Your task to perform on an android device: install app "Microsoft Excel" Image 0: 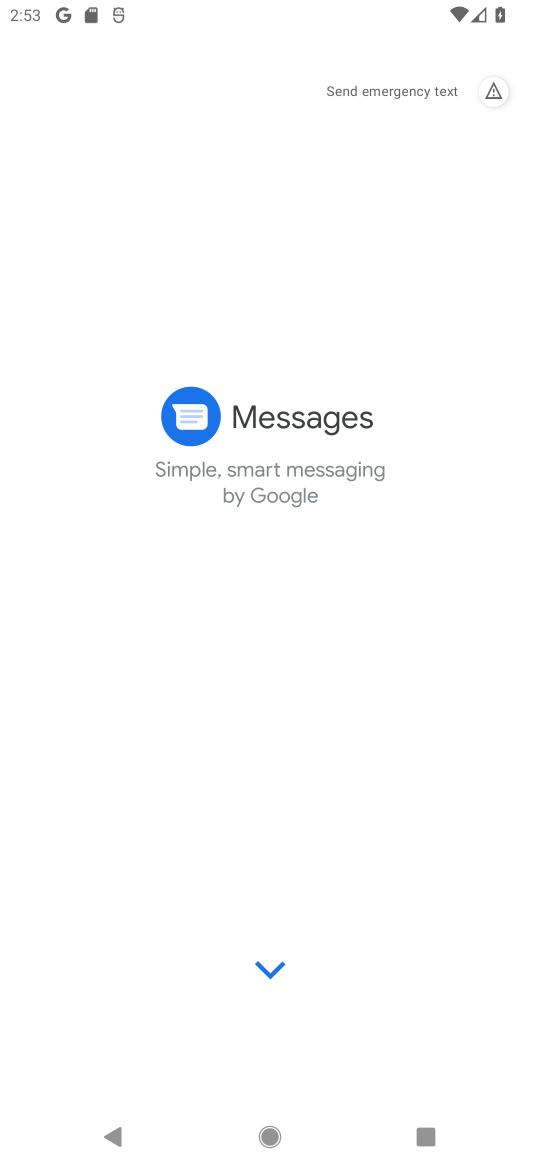
Step 0: press home button
Your task to perform on an android device: install app "Microsoft Excel" Image 1: 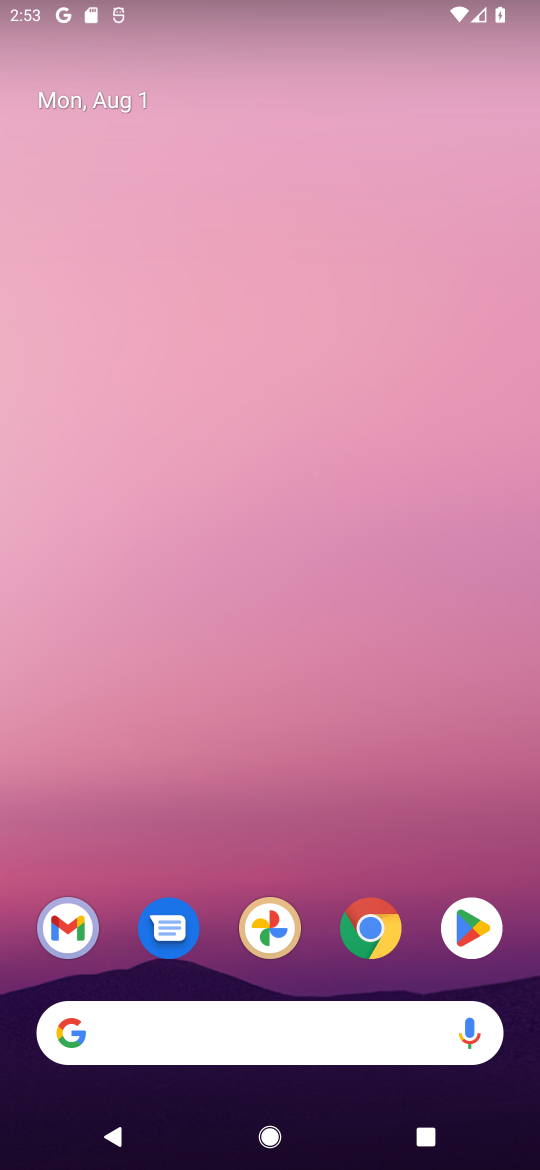
Step 1: click (472, 953)
Your task to perform on an android device: install app "Microsoft Excel" Image 2: 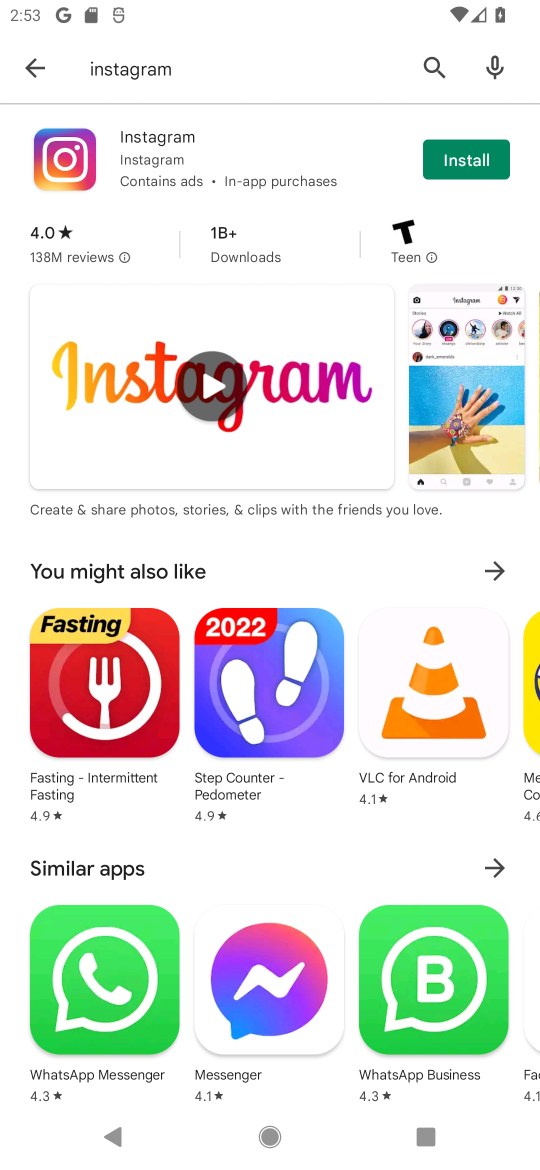
Step 2: click (406, 61)
Your task to perform on an android device: install app "Microsoft Excel" Image 3: 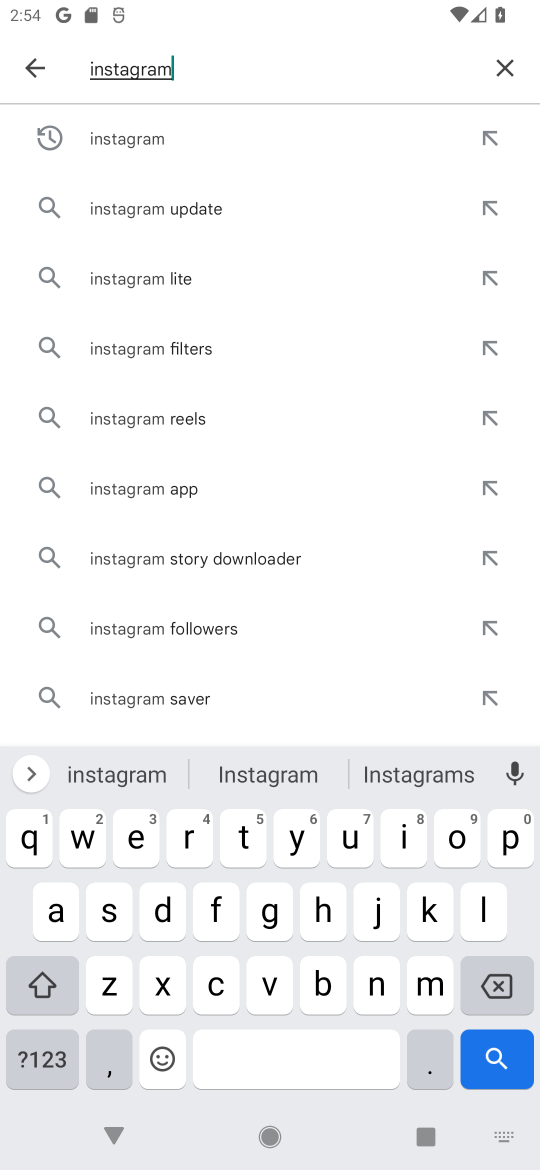
Step 3: click (488, 67)
Your task to perform on an android device: install app "Microsoft Excel" Image 4: 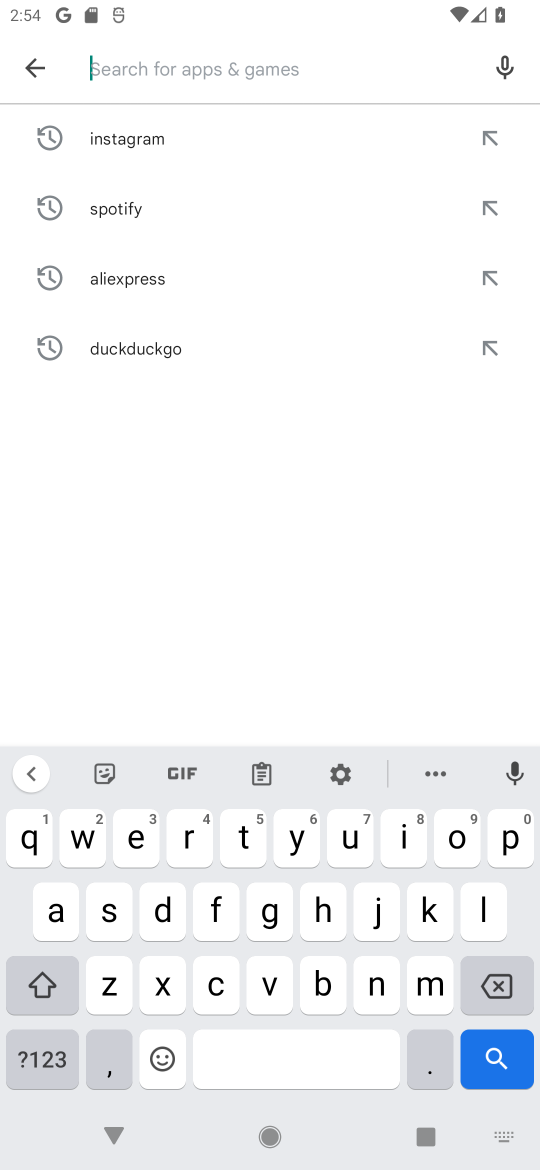
Step 4: click (131, 835)
Your task to perform on an android device: install app "Microsoft Excel" Image 5: 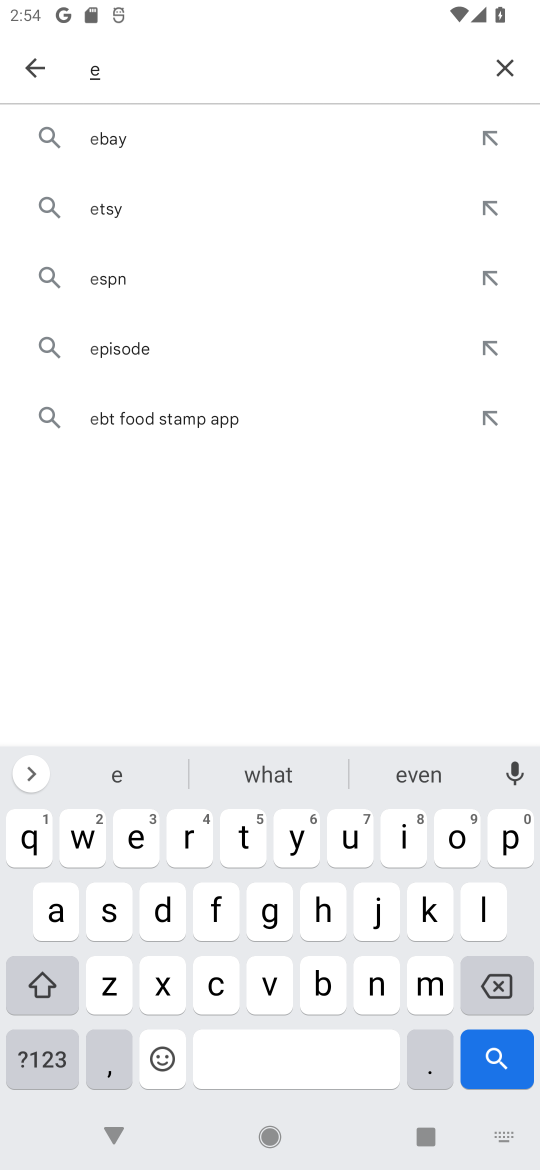
Step 5: click (162, 997)
Your task to perform on an android device: install app "Microsoft Excel" Image 6: 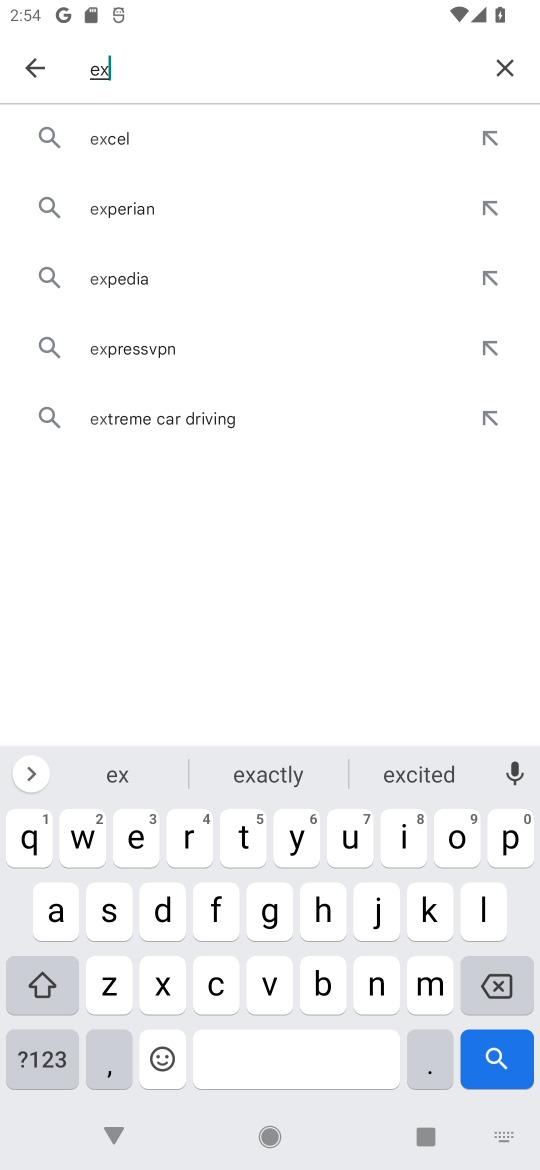
Step 6: click (138, 153)
Your task to perform on an android device: install app "Microsoft Excel" Image 7: 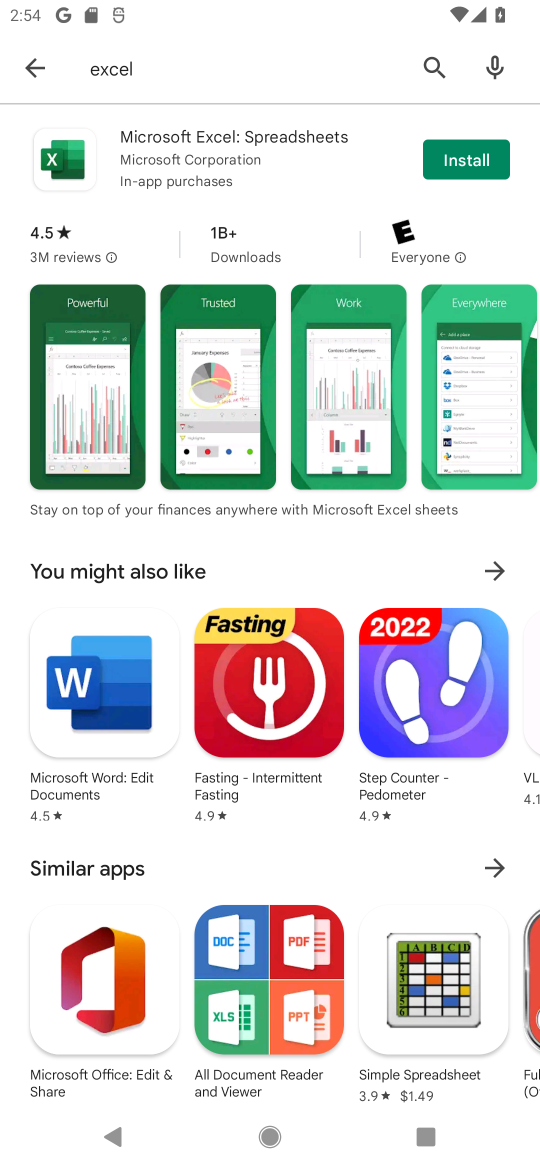
Step 7: click (430, 140)
Your task to perform on an android device: install app "Microsoft Excel" Image 8: 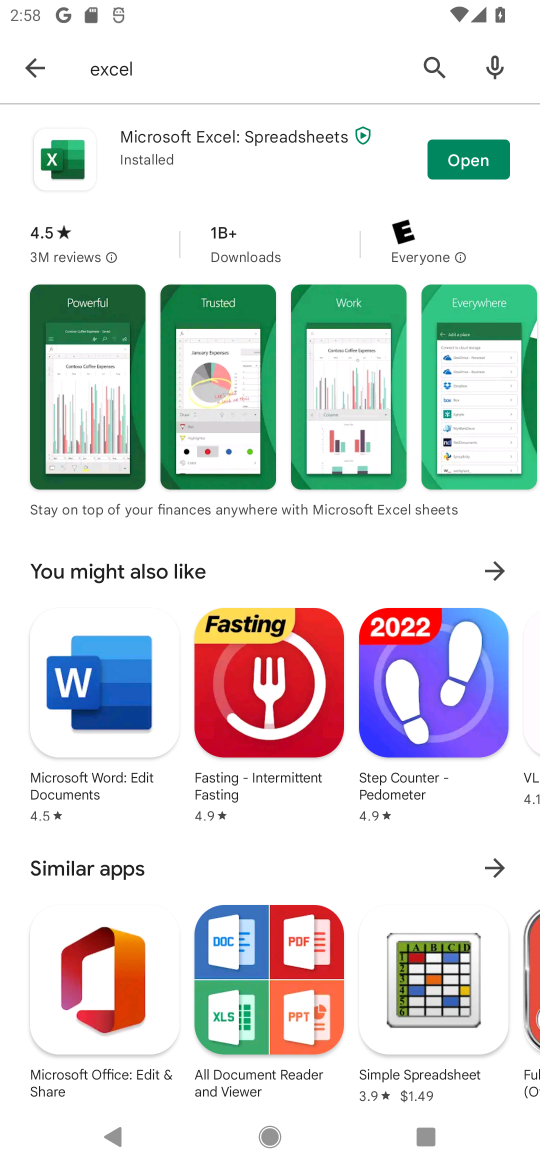
Step 8: task complete